Your task to perform on an android device: toggle translation in the chrome app Image 0: 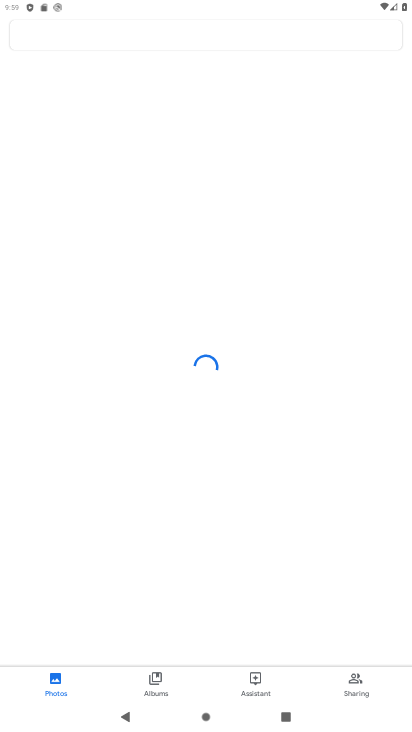
Step 0: press home button
Your task to perform on an android device: toggle translation in the chrome app Image 1: 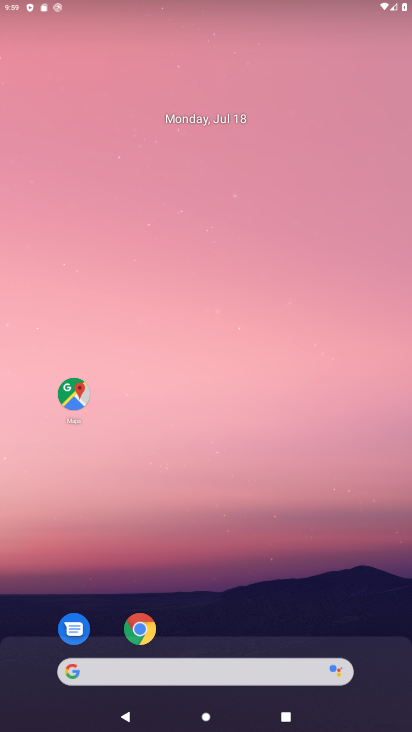
Step 1: drag from (224, 686) to (224, 122)
Your task to perform on an android device: toggle translation in the chrome app Image 2: 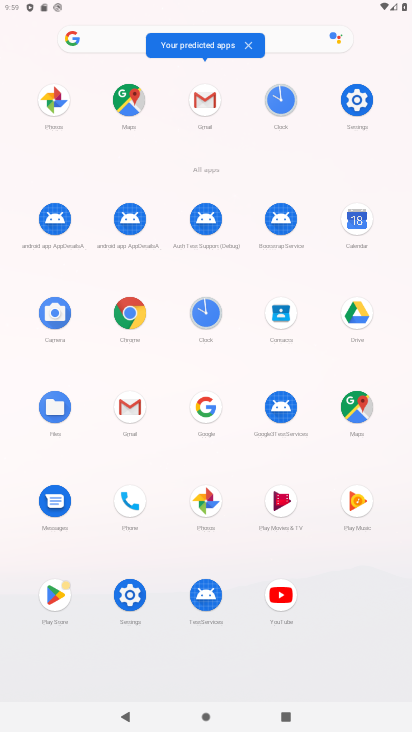
Step 2: click (133, 316)
Your task to perform on an android device: toggle translation in the chrome app Image 3: 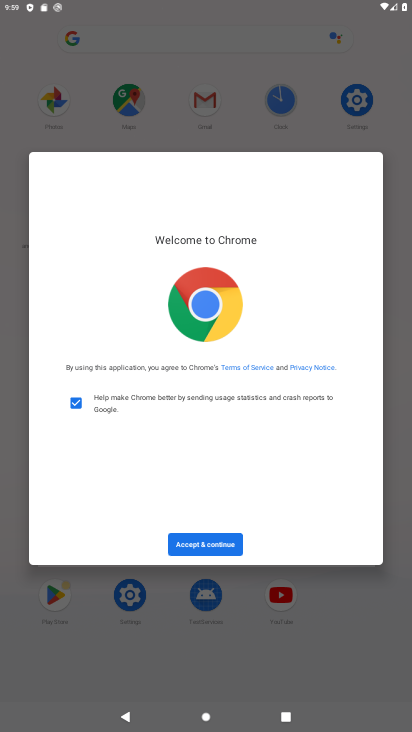
Step 3: click (220, 556)
Your task to perform on an android device: toggle translation in the chrome app Image 4: 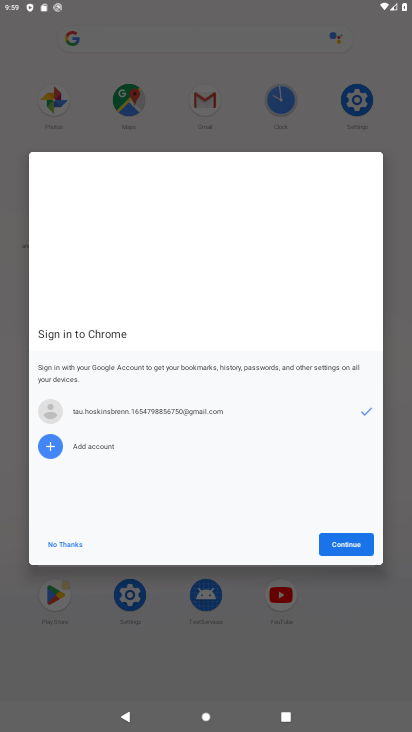
Step 4: click (346, 546)
Your task to perform on an android device: toggle translation in the chrome app Image 5: 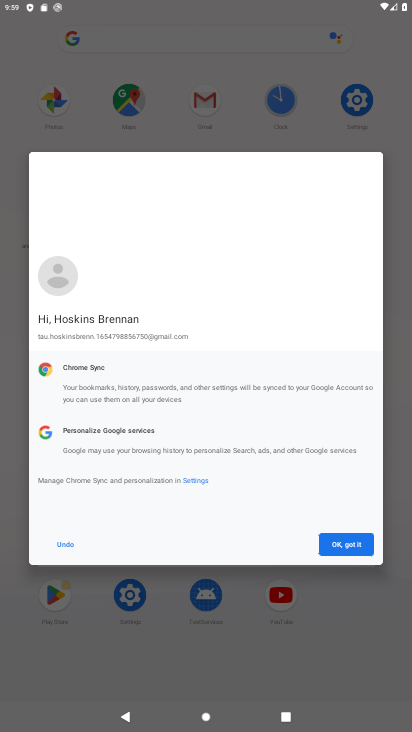
Step 5: click (348, 548)
Your task to perform on an android device: toggle translation in the chrome app Image 6: 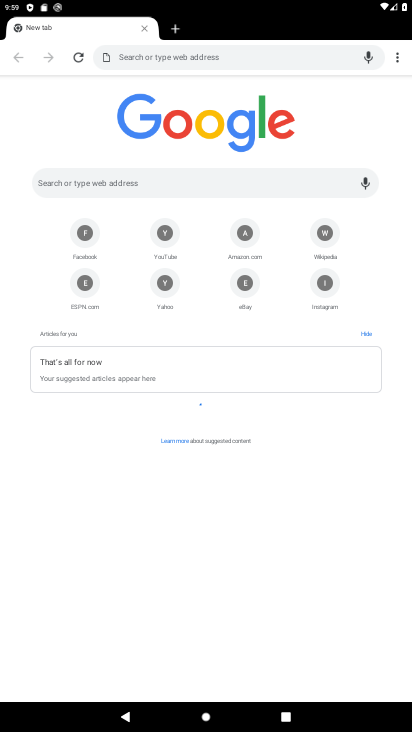
Step 6: drag from (399, 61) to (315, 268)
Your task to perform on an android device: toggle translation in the chrome app Image 7: 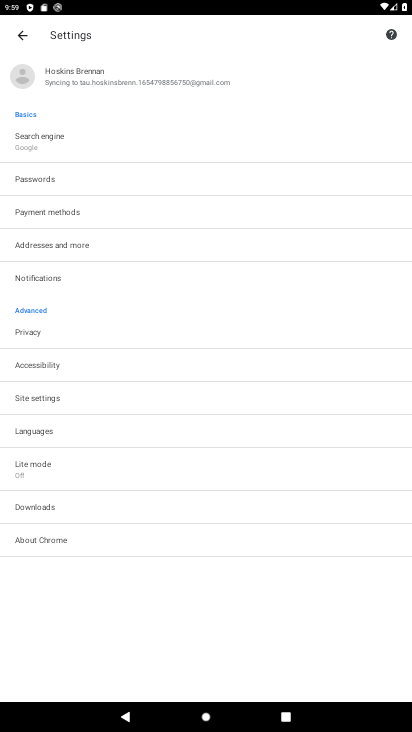
Step 7: click (92, 434)
Your task to perform on an android device: toggle translation in the chrome app Image 8: 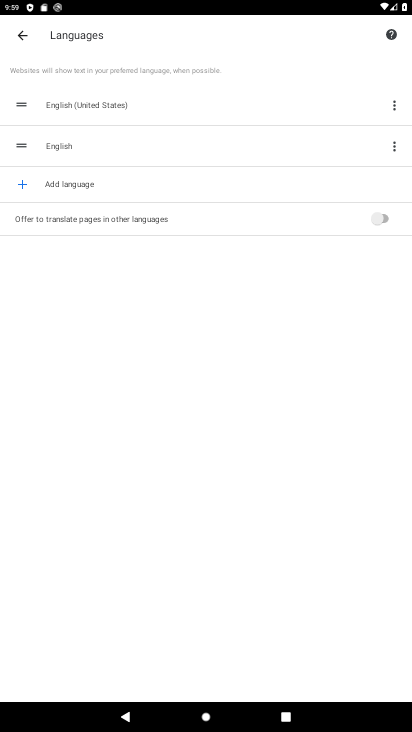
Step 8: click (388, 213)
Your task to perform on an android device: toggle translation in the chrome app Image 9: 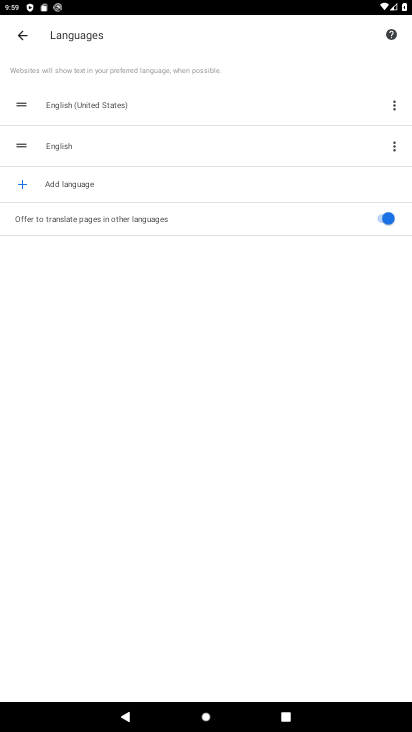
Step 9: task complete